Your task to perform on an android device: check data usage Image 0: 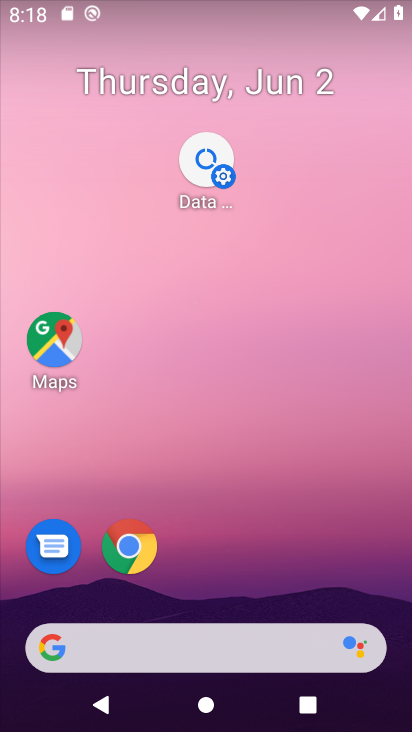
Step 0: click (188, 18)
Your task to perform on an android device: check data usage Image 1: 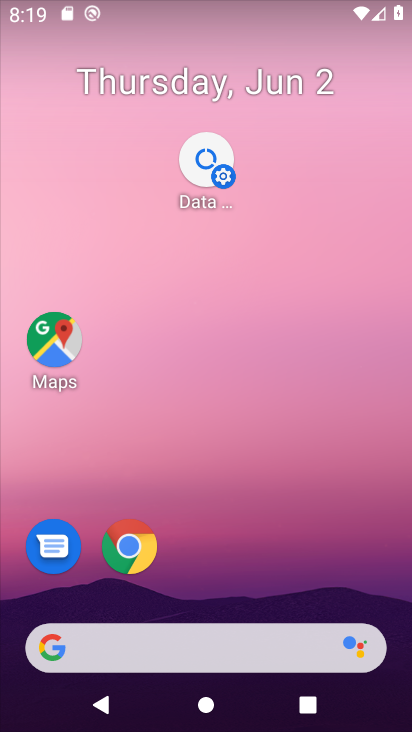
Step 1: drag from (240, 701) to (145, 118)
Your task to perform on an android device: check data usage Image 2: 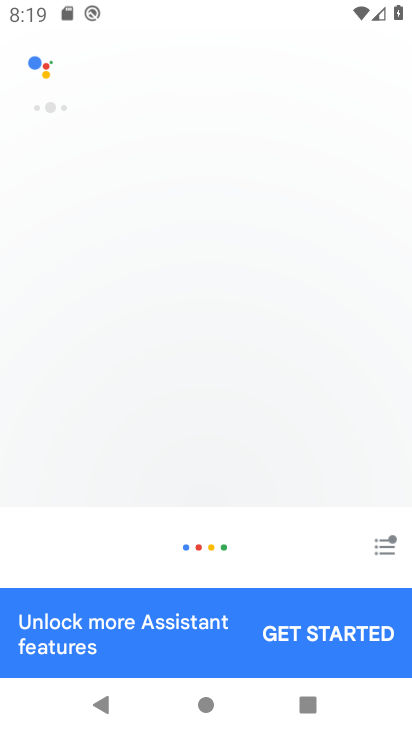
Step 2: drag from (221, 493) to (167, 130)
Your task to perform on an android device: check data usage Image 3: 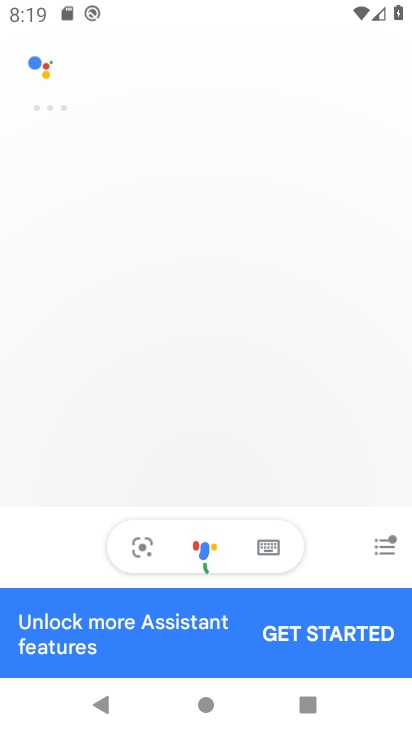
Step 3: drag from (211, 161) to (216, 48)
Your task to perform on an android device: check data usage Image 4: 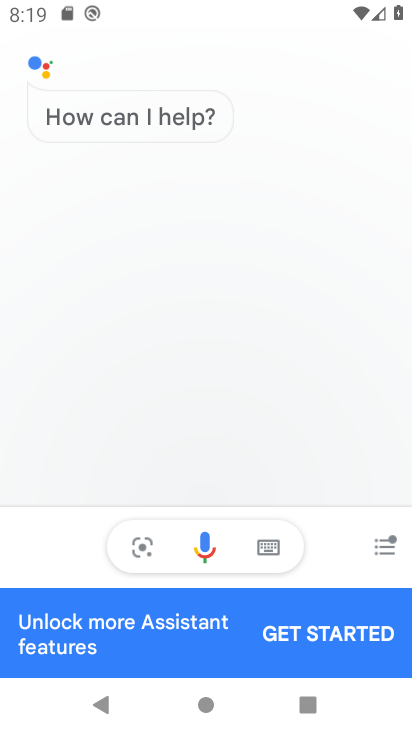
Step 4: press back button
Your task to perform on an android device: check data usage Image 5: 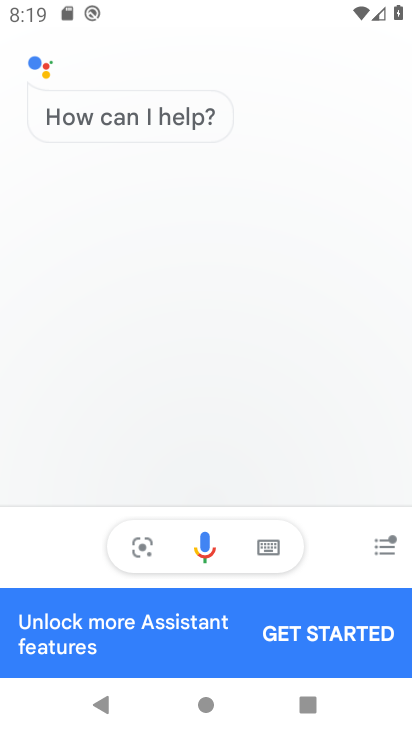
Step 5: press back button
Your task to perform on an android device: check data usage Image 6: 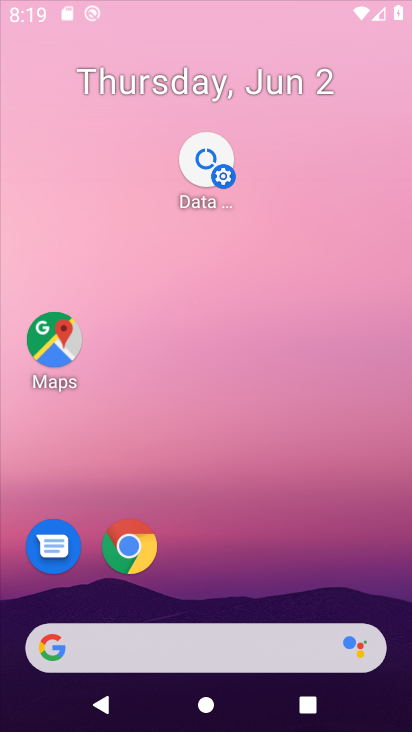
Step 6: press back button
Your task to perform on an android device: check data usage Image 7: 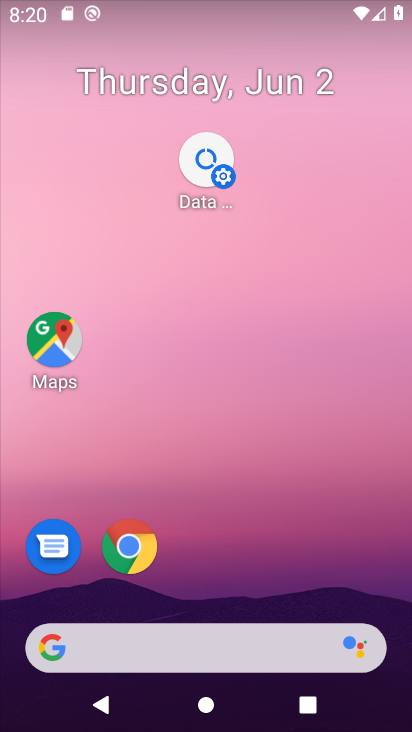
Step 7: drag from (283, 688) to (177, 82)
Your task to perform on an android device: check data usage Image 8: 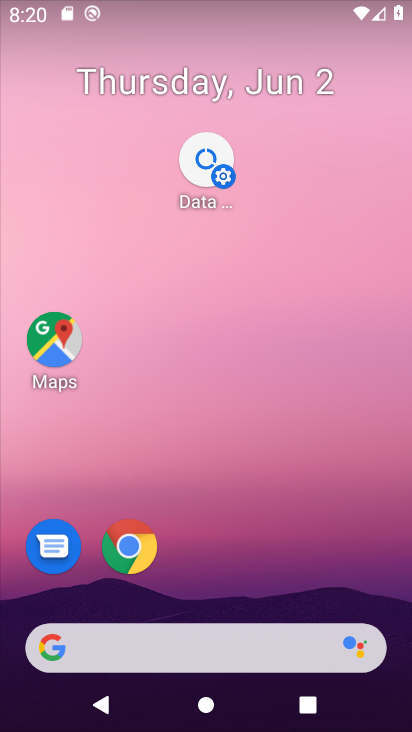
Step 8: drag from (253, 579) to (200, 183)
Your task to perform on an android device: check data usage Image 9: 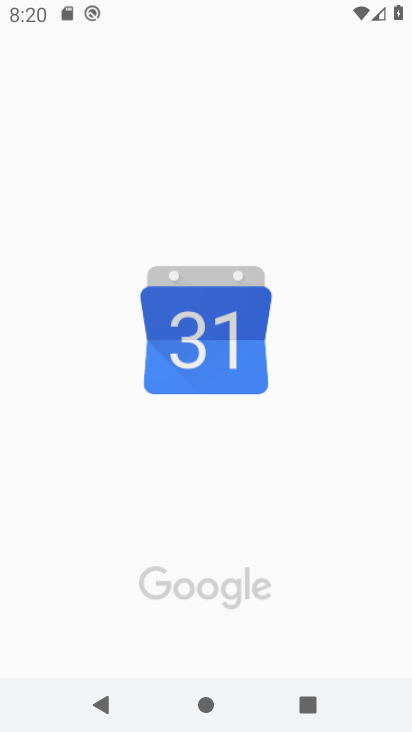
Step 9: drag from (245, 628) to (175, 78)
Your task to perform on an android device: check data usage Image 10: 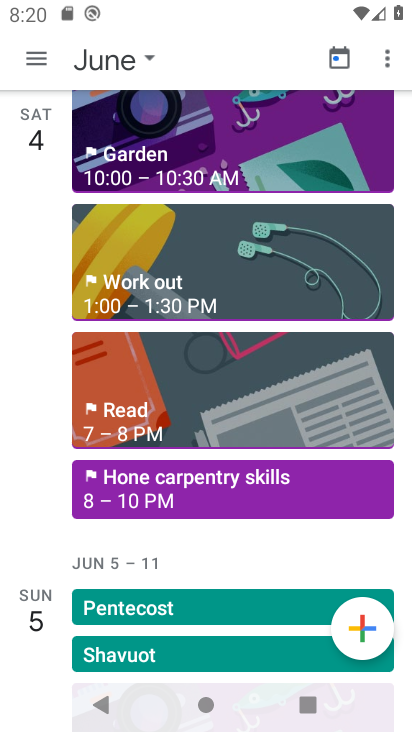
Step 10: press back button
Your task to perform on an android device: check data usage Image 11: 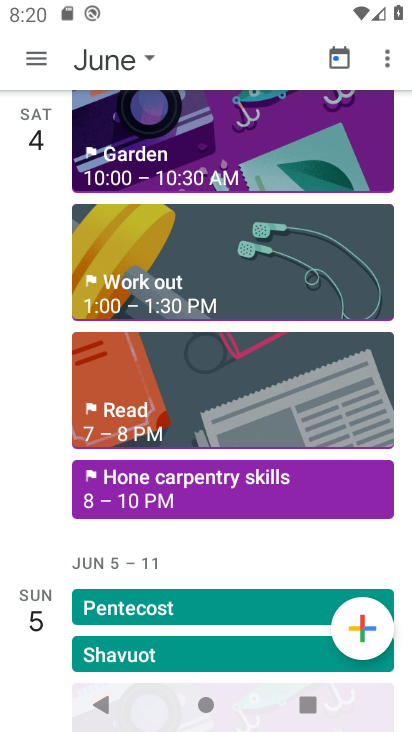
Step 11: press back button
Your task to perform on an android device: check data usage Image 12: 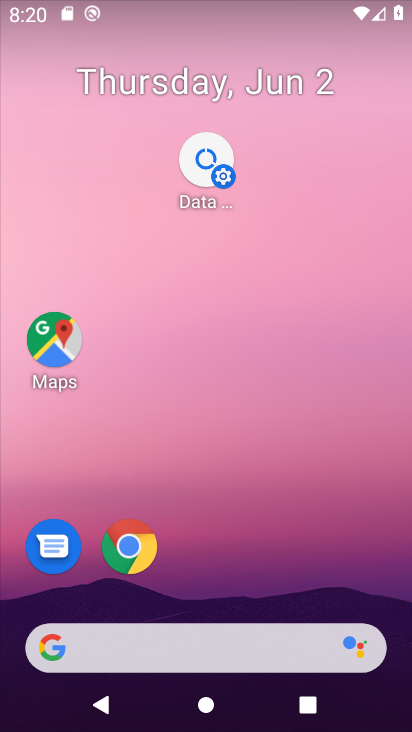
Step 12: drag from (267, 689) to (190, 53)
Your task to perform on an android device: check data usage Image 13: 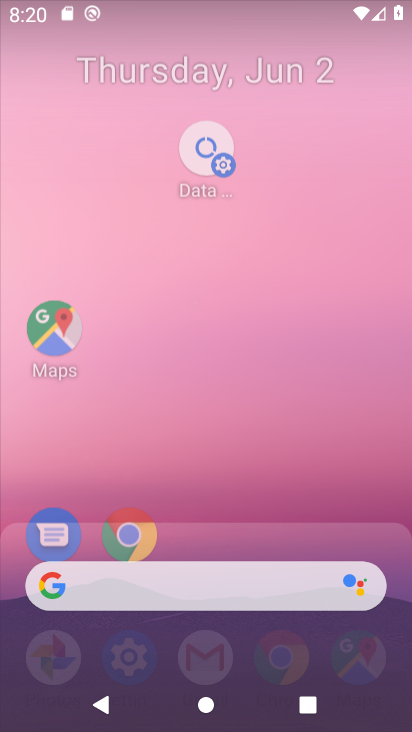
Step 13: drag from (227, 496) to (189, 75)
Your task to perform on an android device: check data usage Image 14: 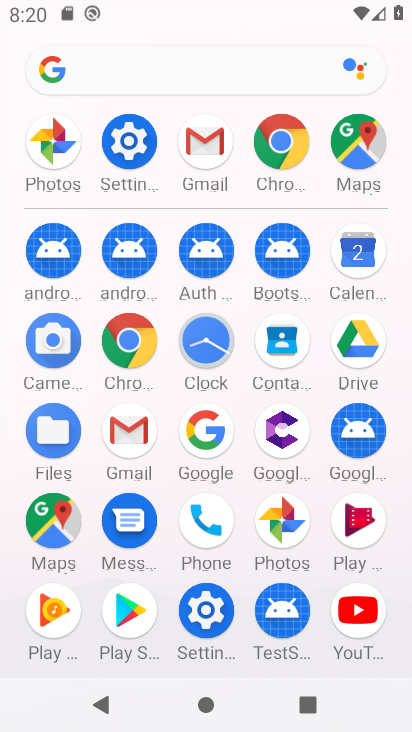
Step 14: click (124, 157)
Your task to perform on an android device: check data usage Image 15: 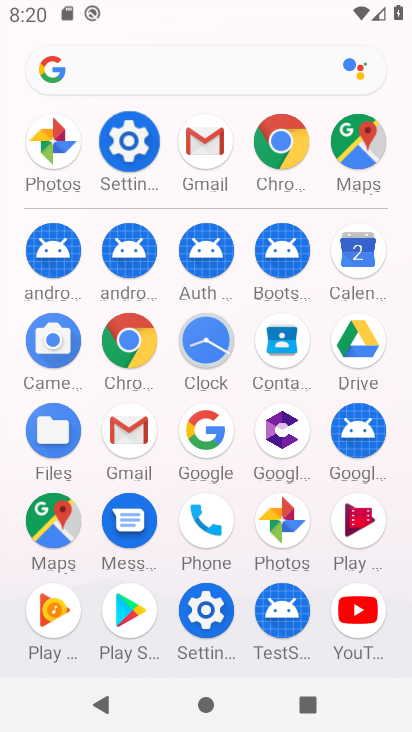
Step 15: click (124, 157)
Your task to perform on an android device: check data usage Image 16: 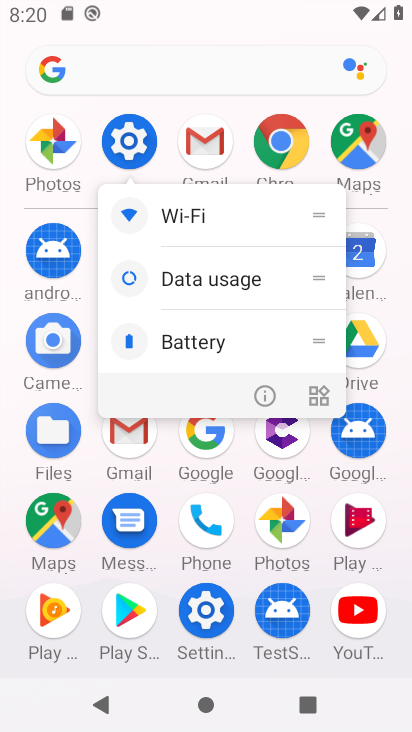
Step 16: click (130, 155)
Your task to perform on an android device: check data usage Image 17: 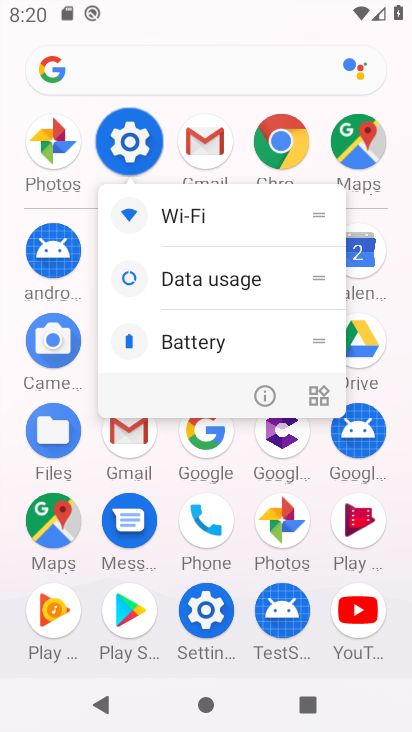
Step 17: click (131, 154)
Your task to perform on an android device: check data usage Image 18: 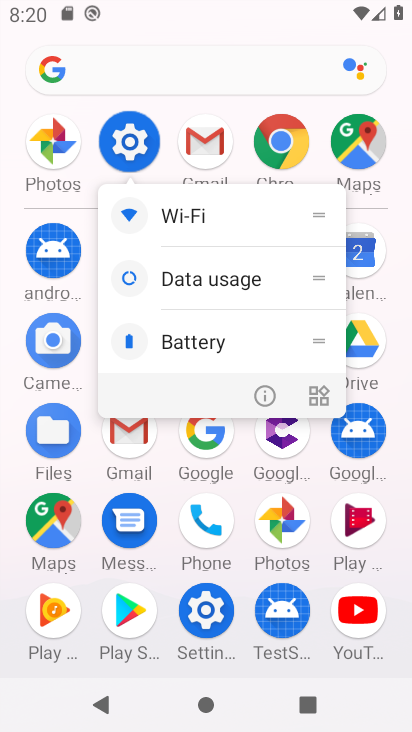
Step 18: click (131, 154)
Your task to perform on an android device: check data usage Image 19: 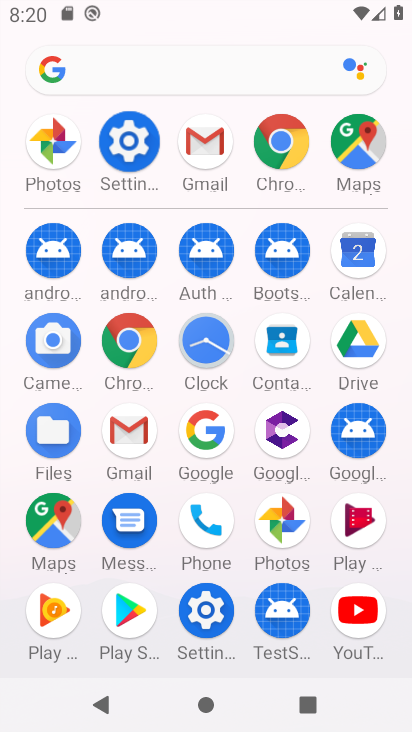
Step 19: click (131, 151)
Your task to perform on an android device: check data usage Image 20: 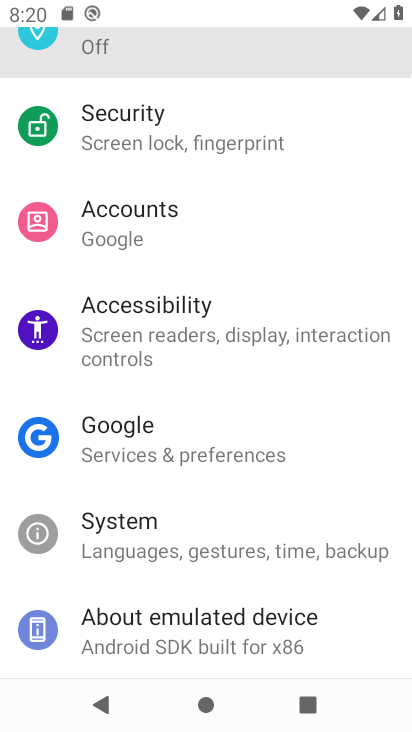
Step 20: click (132, 148)
Your task to perform on an android device: check data usage Image 21: 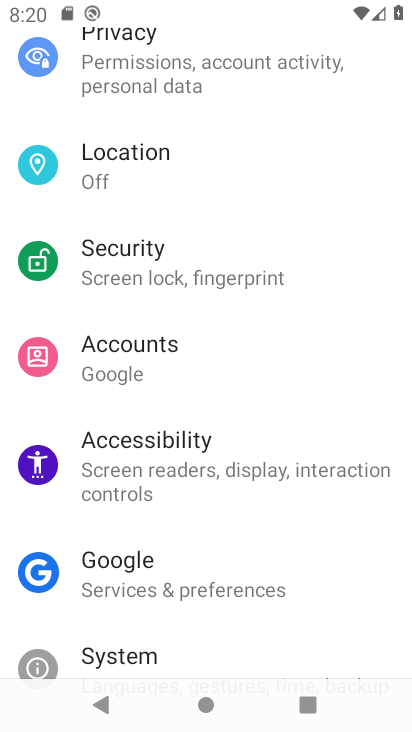
Step 21: drag from (144, 143) to (245, 516)
Your task to perform on an android device: check data usage Image 22: 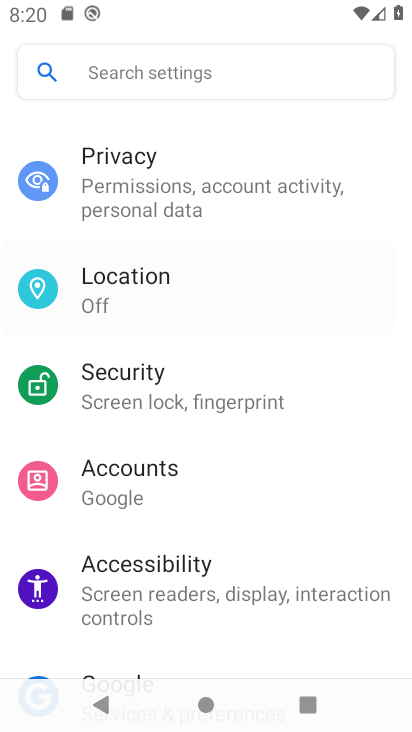
Step 22: drag from (154, 157) to (263, 467)
Your task to perform on an android device: check data usage Image 23: 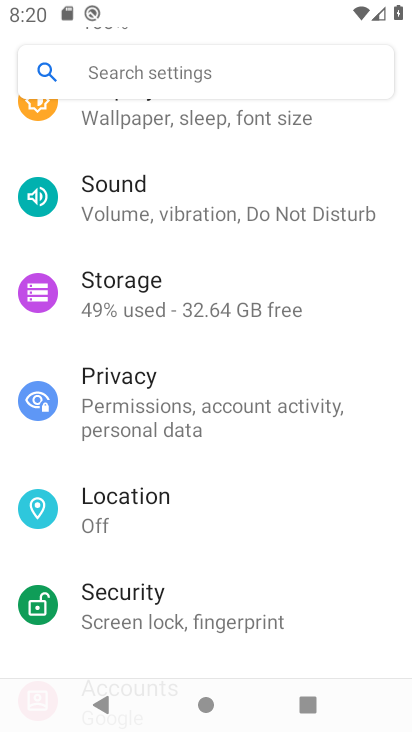
Step 23: drag from (188, 192) to (235, 405)
Your task to perform on an android device: check data usage Image 24: 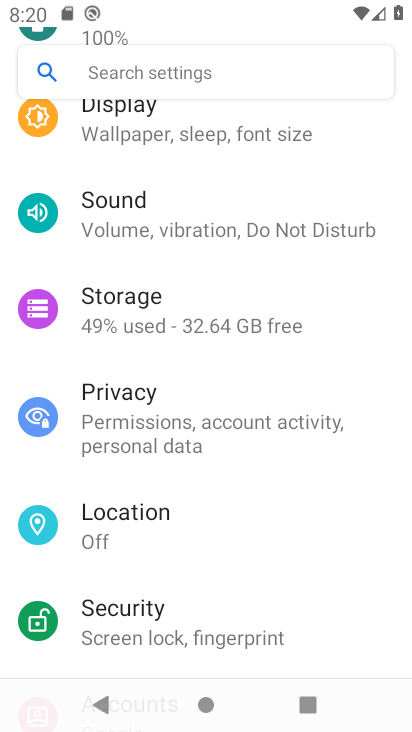
Step 24: drag from (147, 169) to (192, 391)
Your task to perform on an android device: check data usage Image 25: 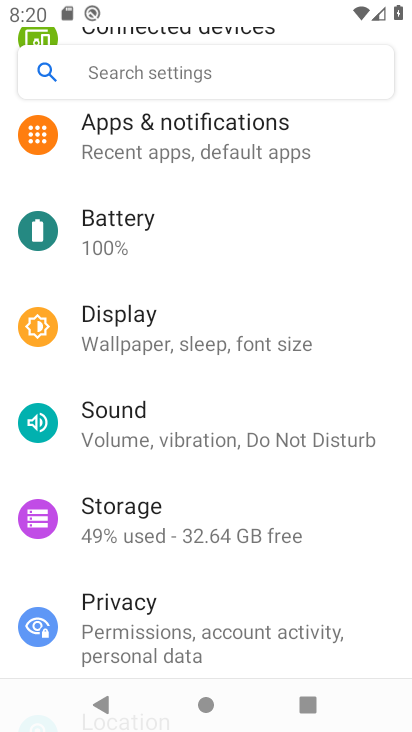
Step 25: drag from (131, 239) to (161, 465)
Your task to perform on an android device: check data usage Image 26: 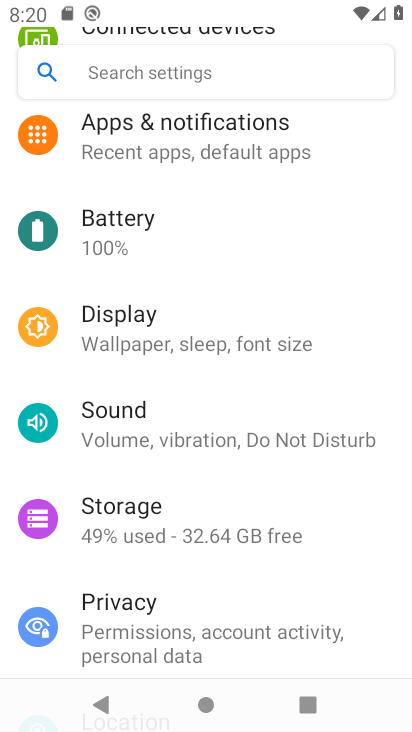
Step 26: drag from (112, 179) to (150, 473)
Your task to perform on an android device: check data usage Image 27: 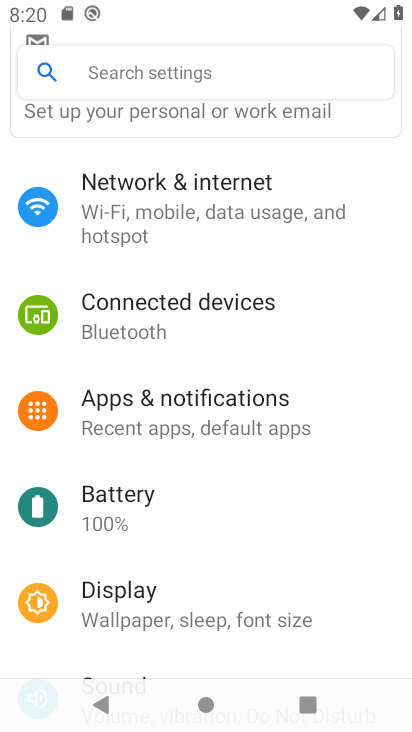
Step 27: drag from (146, 219) to (256, 484)
Your task to perform on an android device: check data usage Image 28: 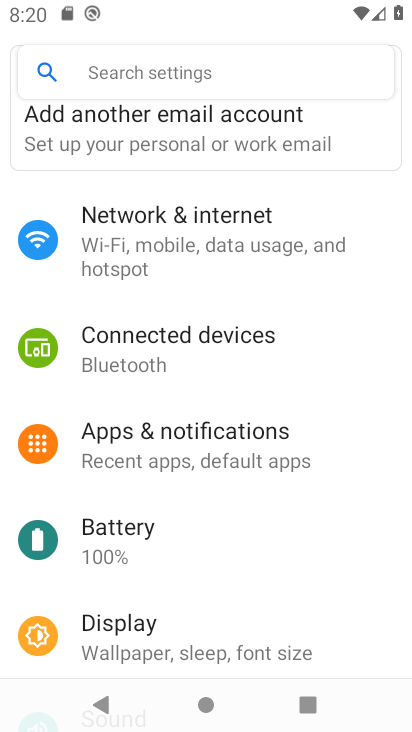
Step 28: drag from (106, 149) to (154, 500)
Your task to perform on an android device: check data usage Image 29: 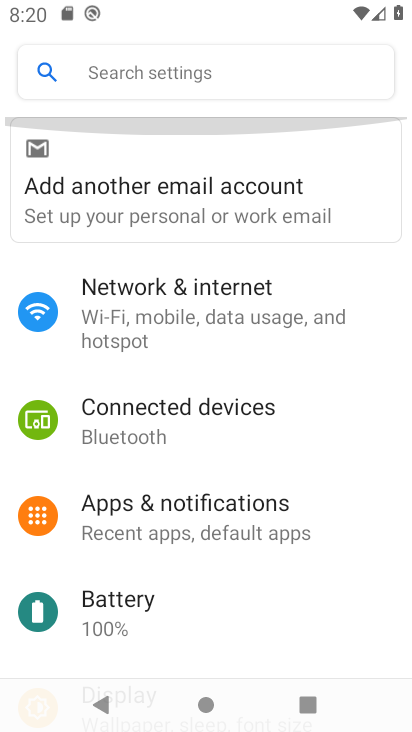
Step 29: drag from (141, 303) to (156, 402)
Your task to perform on an android device: check data usage Image 30: 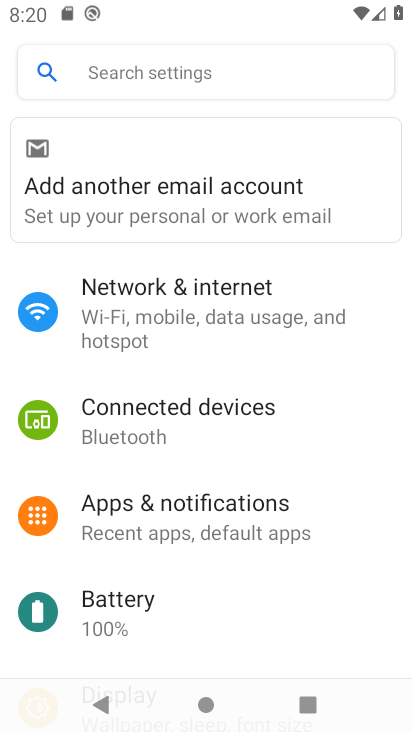
Step 30: click (227, 292)
Your task to perform on an android device: check data usage Image 31: 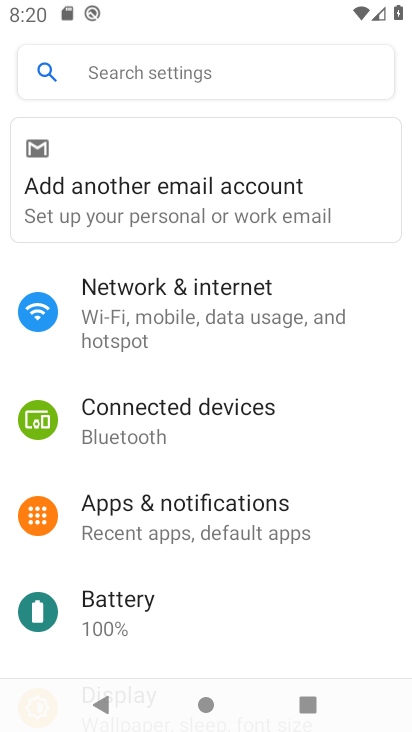
Step 31: click (230, 293)
Your task to perform on an android device: check data usage Image 32: 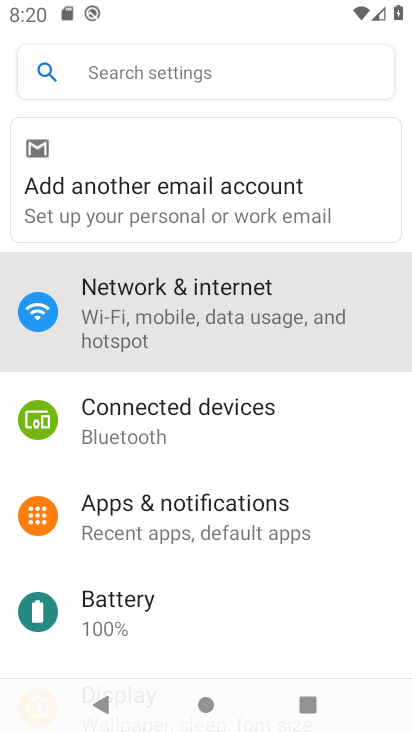
Step 32: click (230, 293)
Your task to perform on an android device: check data usage Image 33: 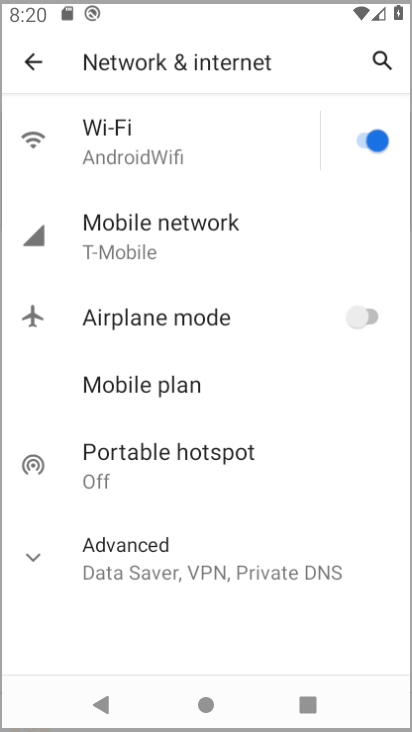
Step 33: click (230, 292)
Your task to perform on an android device: check data usage Image 34: 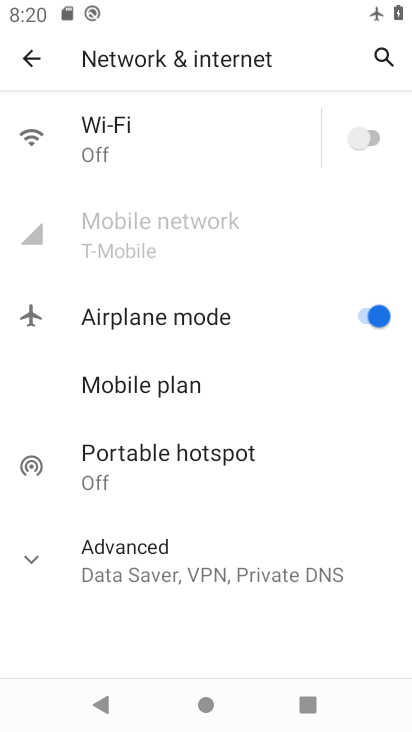
Step 34: task complete